Your task to perform on an android device: Open calendar and show me the fourth week of next month Image 0: 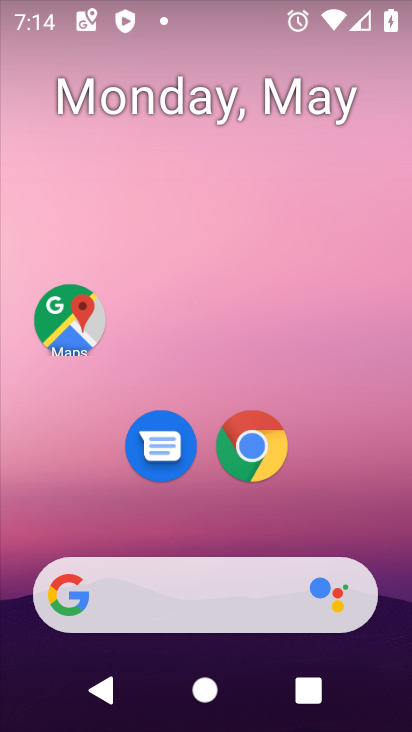
Step 0: drag from (320, 495) to (170, 3)
Your task to perform on an android device: Open calendar and show me the fourth week of next month Image 1: 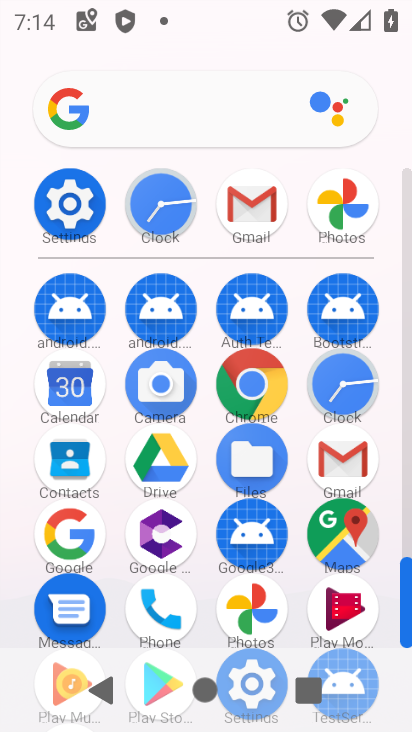
Step 1: click (54, 390)
Your task to perform on an android device: Open calendar and show me the fourth week of next month Image 2: 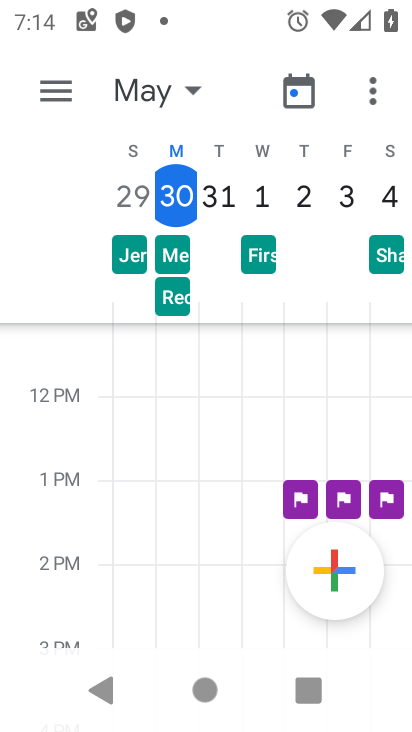
Step 2: click (187, 88)
Your task to perform on an android device: Open calendar and show me the fourth week of next month Image 3: 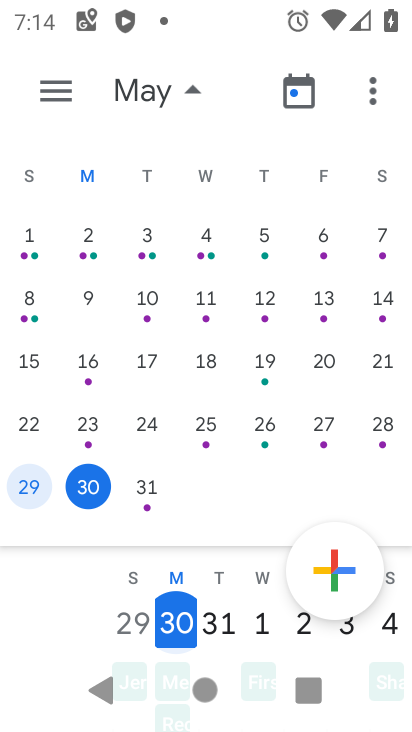
Step 3: drag from (377, 328) to (16, 328)
Your task to perform on an android device: Open calendar and show me the fourth week of next month Image 4: 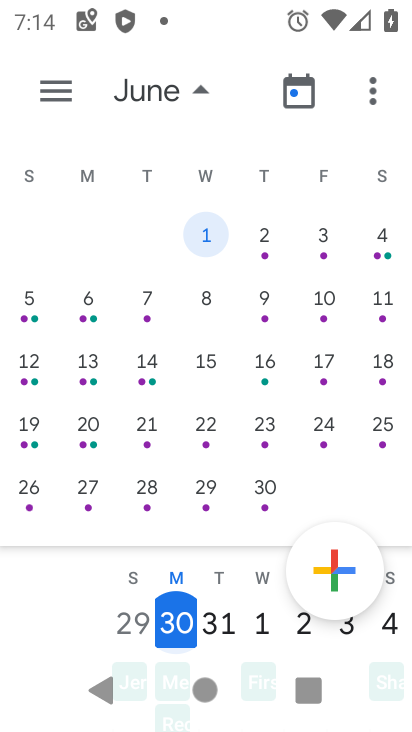
Step 4: click (206, 418)
Your task to perform on an android device: Open calendar and show me the fourth week of next month Image 5: 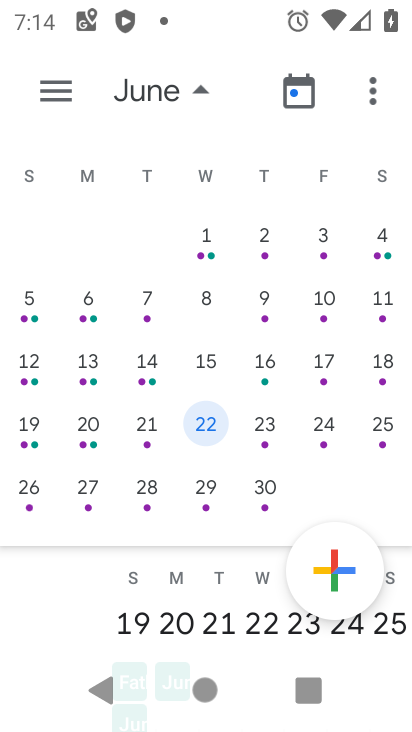
Step 5: task complete